Your task to perform on an android device: Open the stopwatch Image 0: 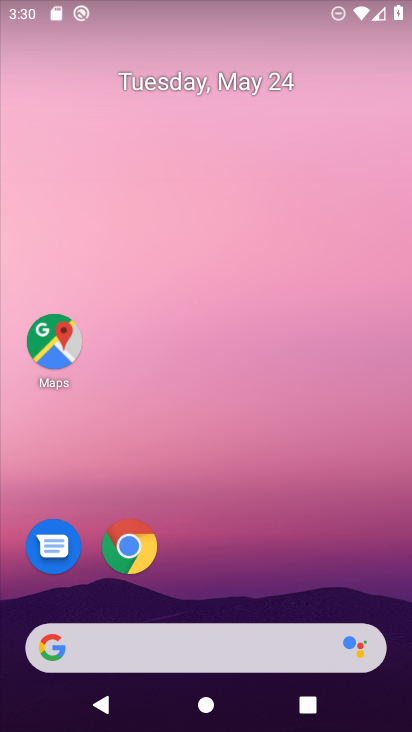
Step 0: drag from (306, 519) to (209, 45)
Your task to perform on an android device: Open the stopwatch Image 1: 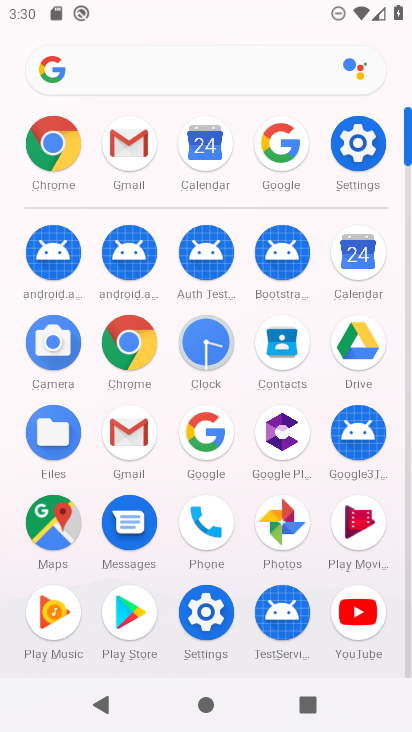
Step 1: click (201, 345)
Your task to perform on an android device: Open the stopwatch Image 2: 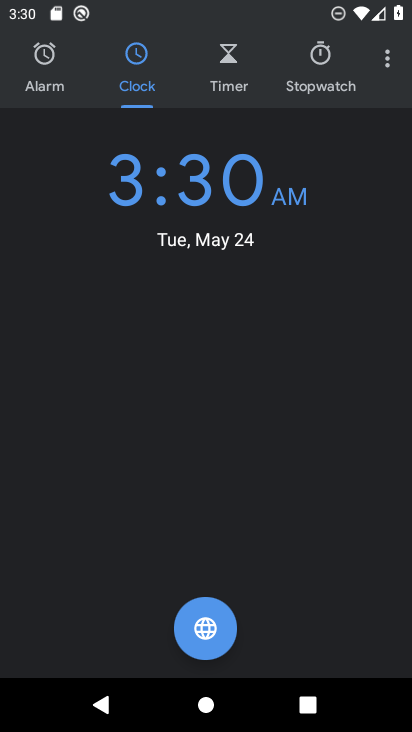
Step 2: click (320, 64)
Your task to perform on an android device: Open the stopwatch Image 3: 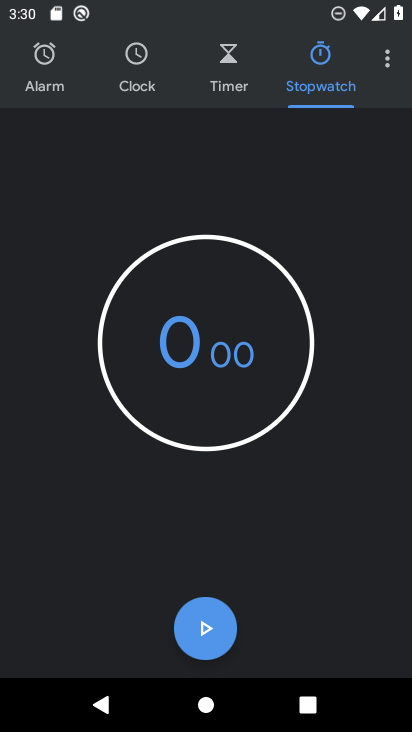
Step 3: task complete